Your task to perform on an android device: Is it going to rain this weekend? Image 0: 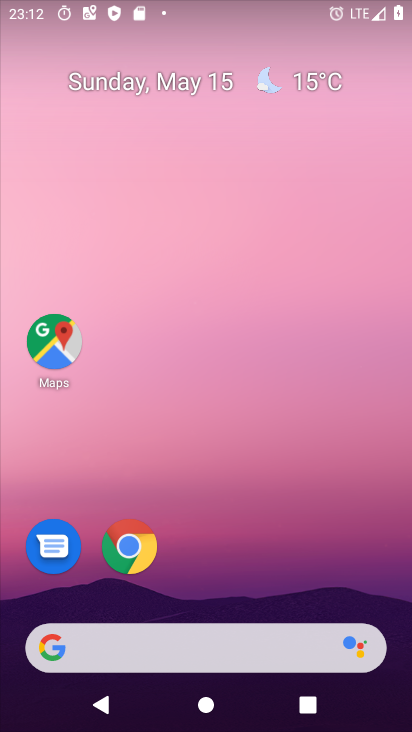
Step 0: drag from (236, 647) to (165, 182)
Your task to perform on an android device: Is it going to rain this weekend? Image 1: 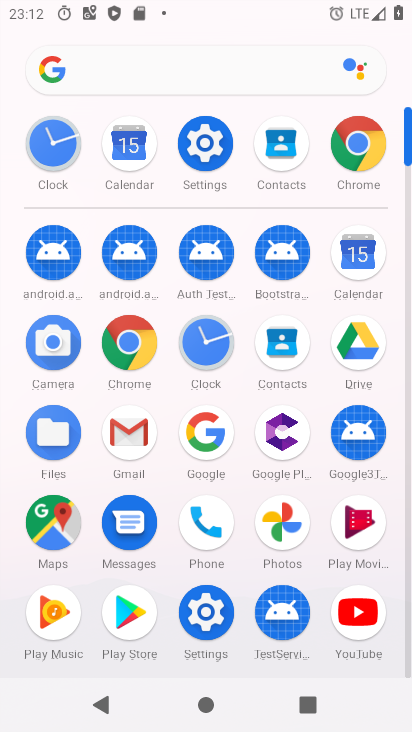
Step 1: press back button
Your task to perform on an android device: Is it going to rain this weekend? Image 2: 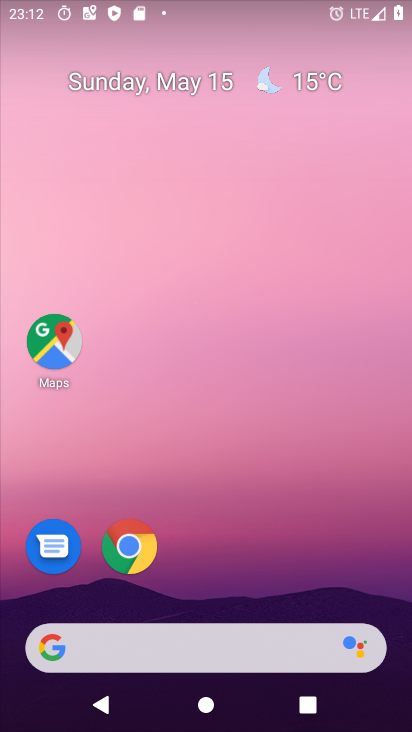
Step 2: drag from (12, 211) to (265, 703)
Your task to perform on an android device: Is it going to rain this weekend? Image 3: 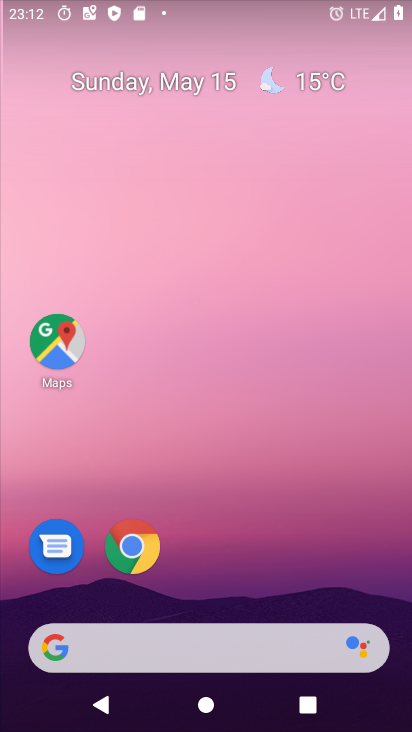
Step 3: drag from (126, 427) to (411, 564)
Your task to perform on an android device: Is it going to rain this weekend? Image 4: 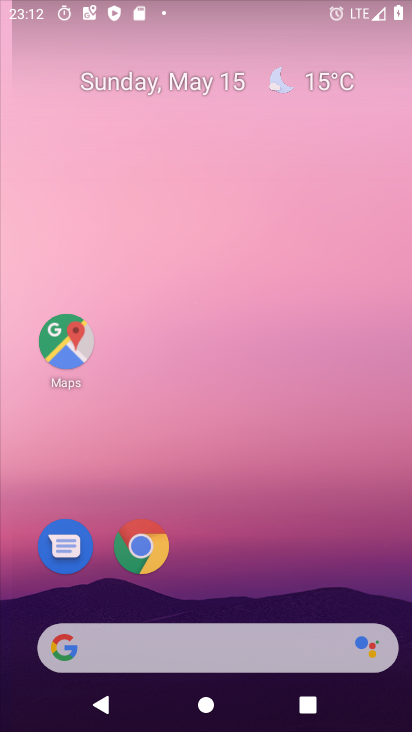
Step 4: drag from (2, 273) to (384, 483)
Your task to perform on an android device: Is it going to rain this weekend? Image 5: 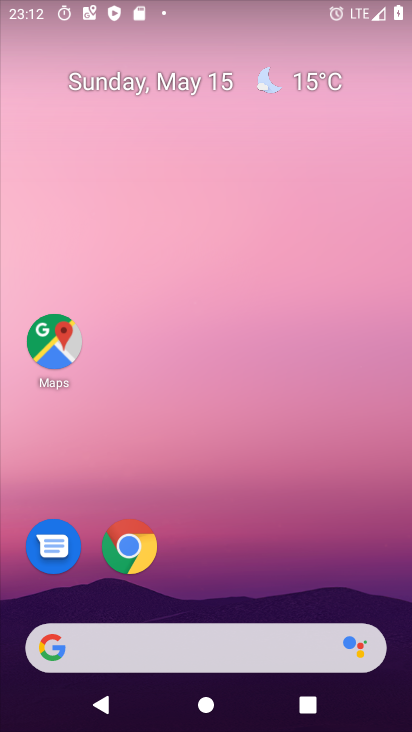
Step 5: drag from (341, 338) to (411, 337)
Your task to perform on an android device: Is it going to rain this weekend? Image 6: 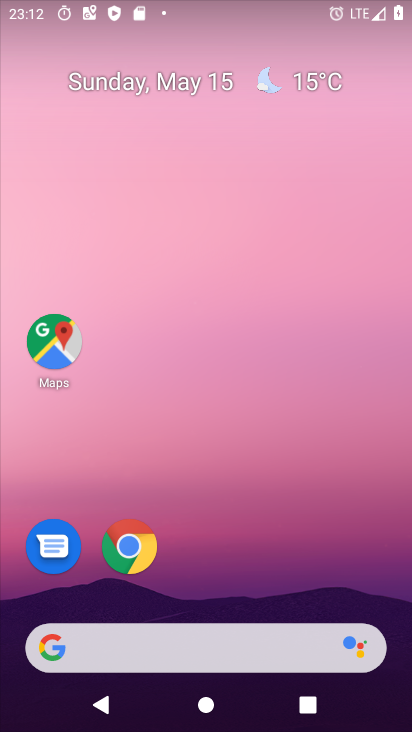
Step 6: drag from (3, 186) to (405, 417)
Your task to perform on an android device: Is it going to rain this weekend? Image 7: 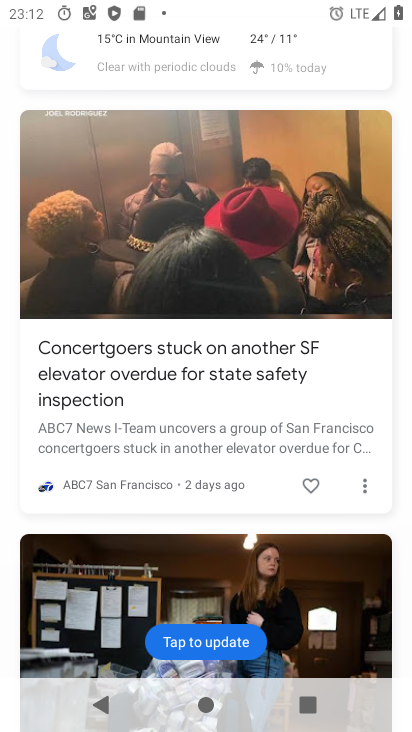
Step 7: drag from (183, 454) to (217, 84)
Your task to perform on an android device: Is it going to rain this weekend? Image 8: 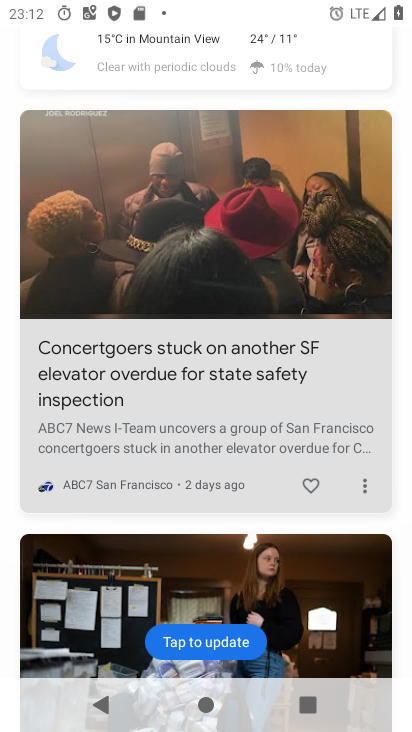
Step 8: drag from (199, 455) to (205, 145)
Your task to perform on an android device: Is it going to rain this weekend? Image 9: 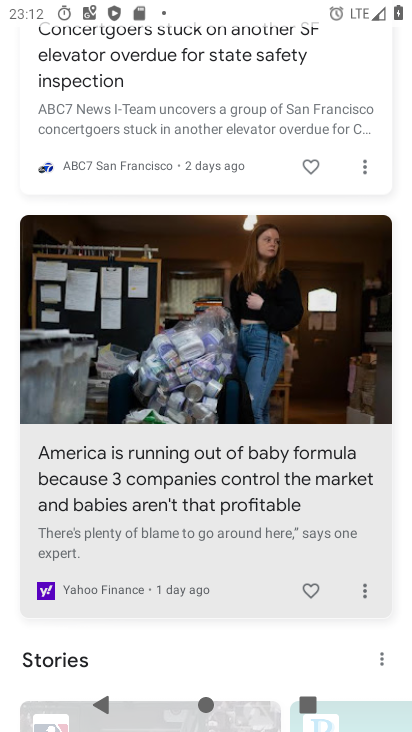
Step 9: click (279, 216)
Your task to perform on an android device: Is it going to rain this weekend? Image 10: 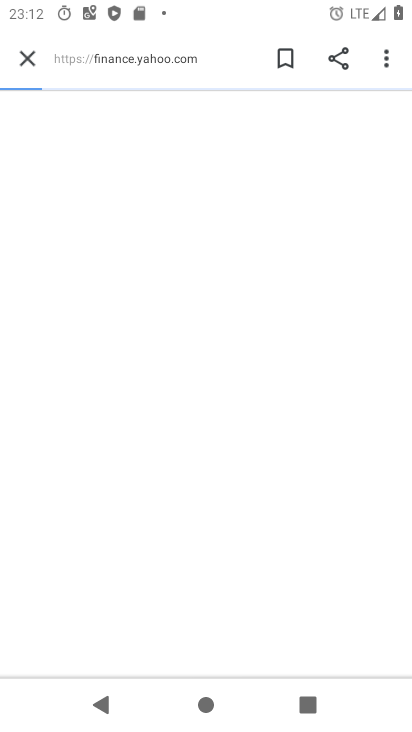
Step 10: task complete